Your task to perform on an android device: Open the phone app and click the voicemail tab. Image 0: 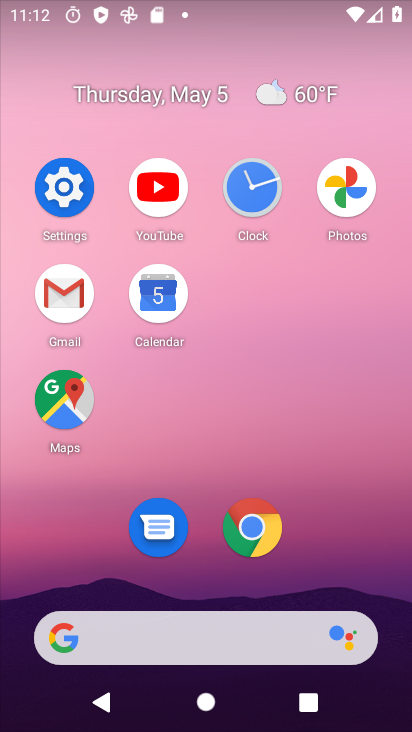
Step 0: drag from (298, 560) to (308, 143)
Your task to perform on an android device: Open the phone app and click the voicemail tab. Image 1: 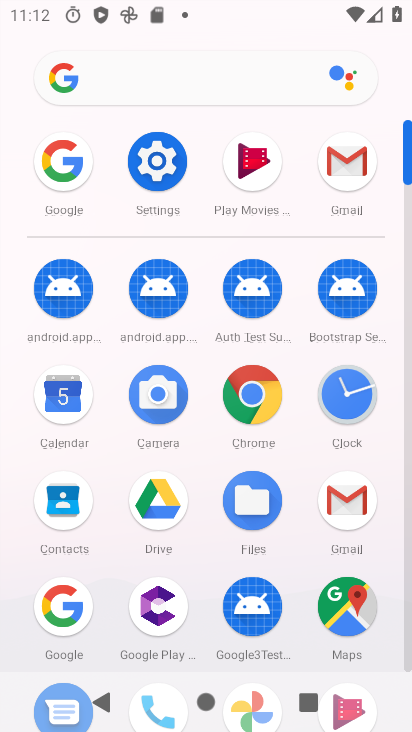
Step 1: drag from (304, 521) to (291, 250)
Your task to perform on an android device: Open the phone app and click the voicemail tab. Image 2: 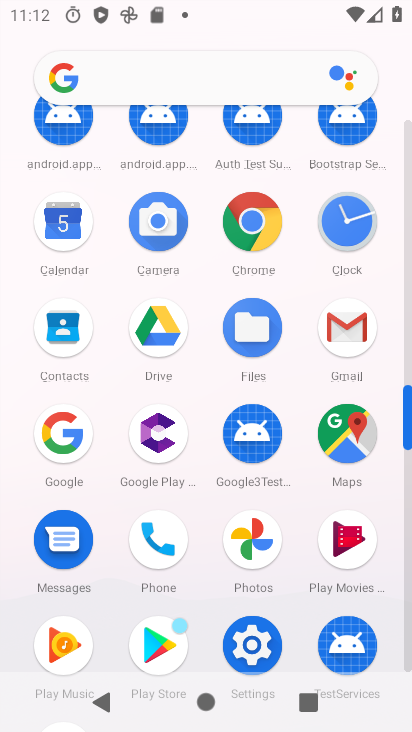
Step 2: click (175, 528)
Your task to perform on an android device: Open the phone app and click the voicemail tab. Image 3: 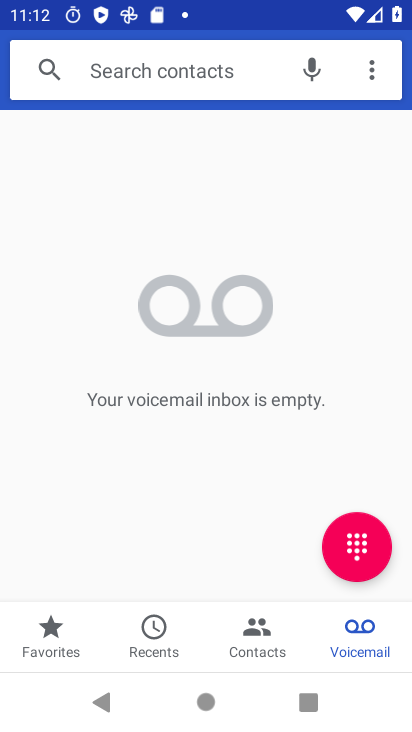
Step 3: click (343, 629)
Your task to perform on an android device: Open the phone app and click the voicemail tab. Image 4: 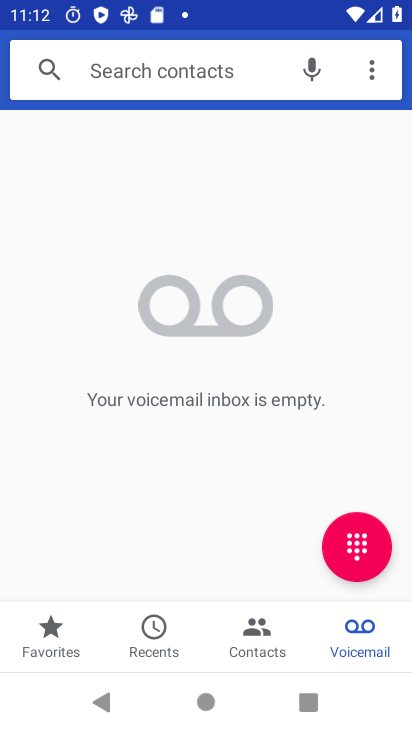
Step 4: task complete